Your task to perform on an android device: Search for Italian restaurants on Maps Image 0: 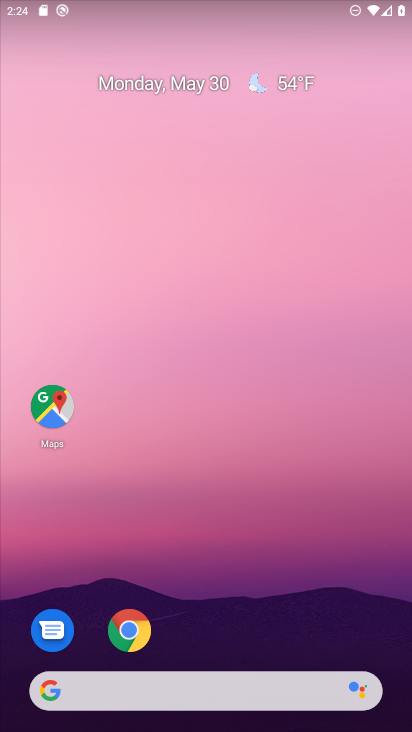
Step 0: click (58, 394)
Your task to perform on an android device: Search for Italian restaurants on Maps Image 1: 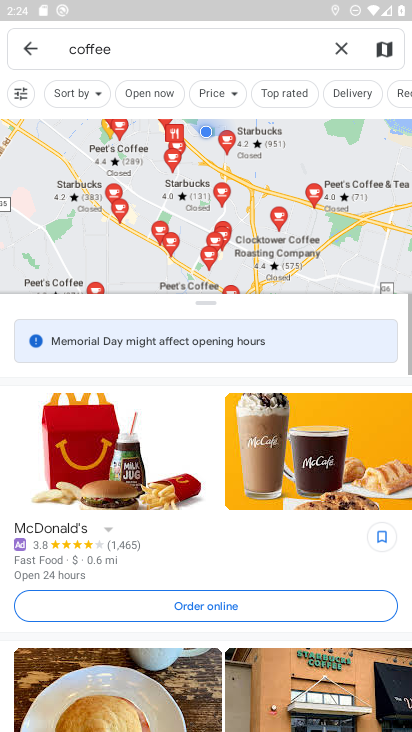
Step 1: click (333, 50)
Your task to perform on an android device: Search for Italian restaurants on Maps Image 2: 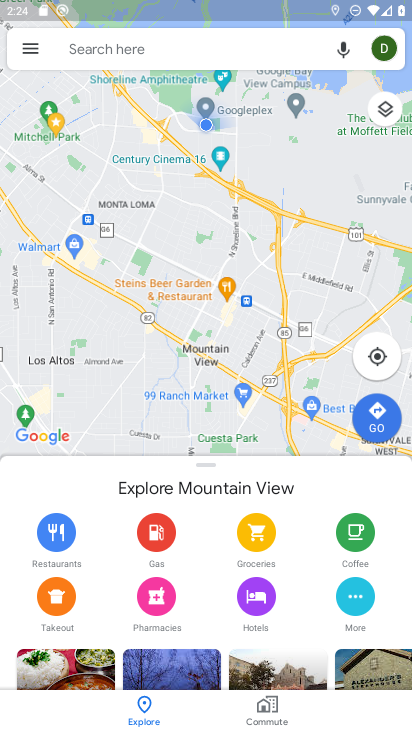
Step 2: click (196, 54)
Your task to perform on an android device: Search for Italian restaurants on Maps Image 3: 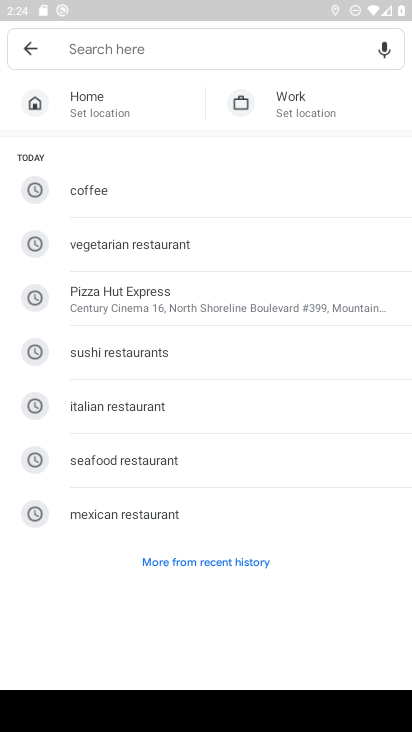
Step 3: click (188, 414)
Your task to perform on an android device: Search for Italian restaurants on Maps Image 4: 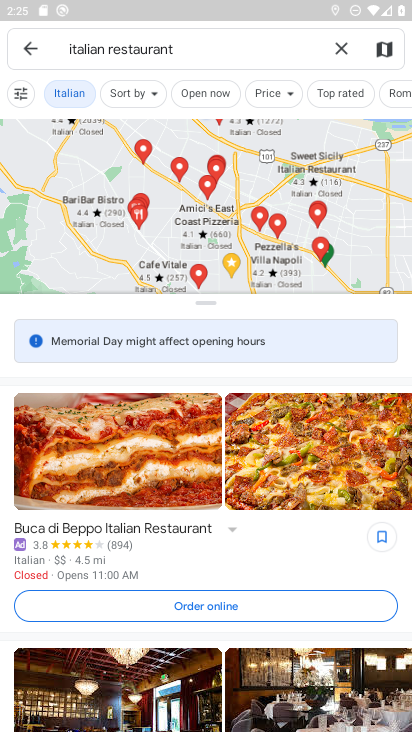
Step 4: task complete